Your task to perform on an android device: Go to display settings Image 0: 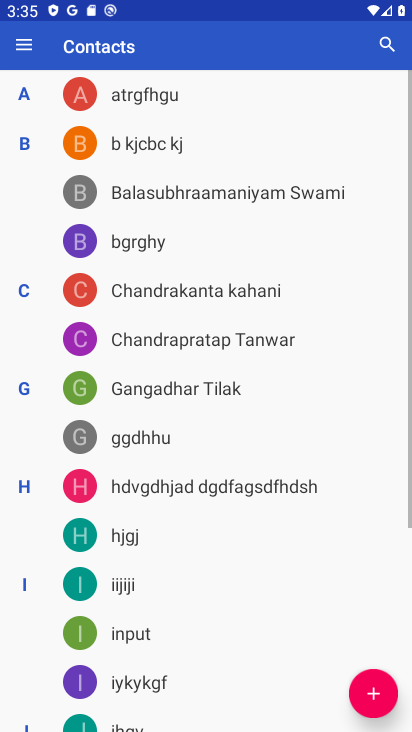
Step 0: drag from (272, 304) to (259, 108)
Your task to perform on an android device: Go to display settings Image 1: 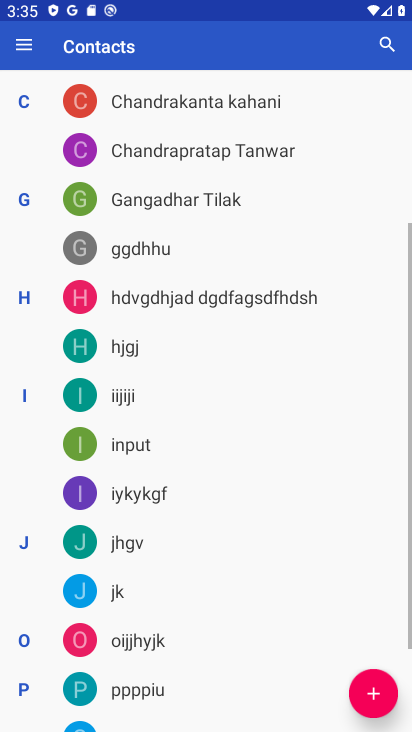
Step 1: press back button
Your task to perform on an android device: Go to display settings Image 2: 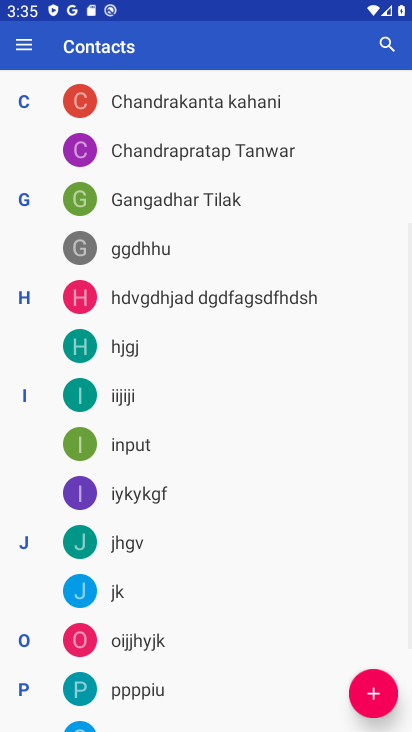
Step 2: press back button
Your task to perform on an android device: Go to display settings Image 3: 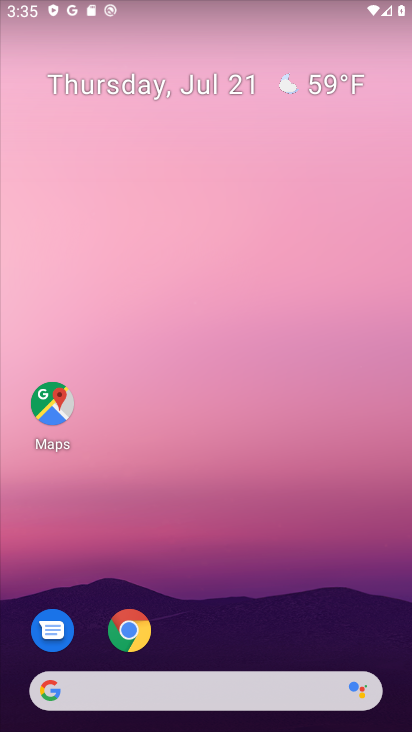
Step 3: drag from (232, 674) to (193, 24)
Your task to perform on an android device: Go to display settings Image 4: 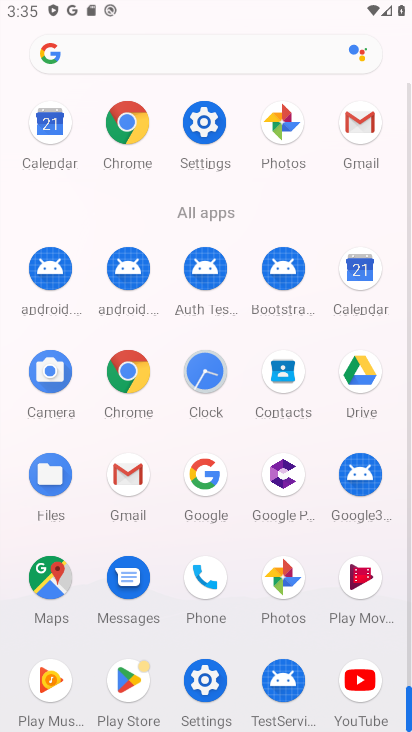
Step 4: click (201, 121)
Your task to perform on an android device: Go to display settings Image 5: 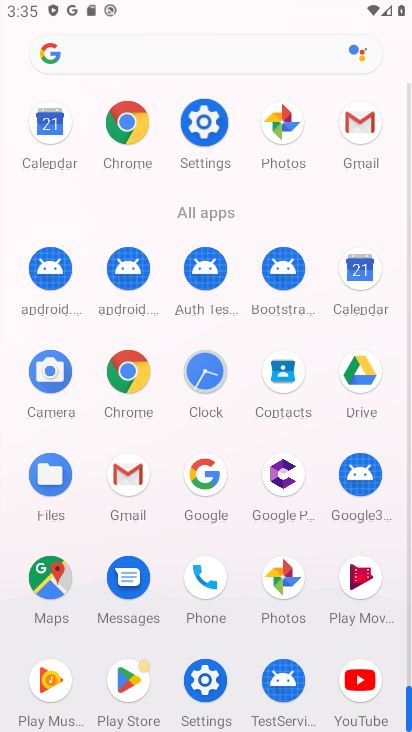
Step 5: click (212, 119)
Your task to perform on an android device: Go to display settings Image 6: 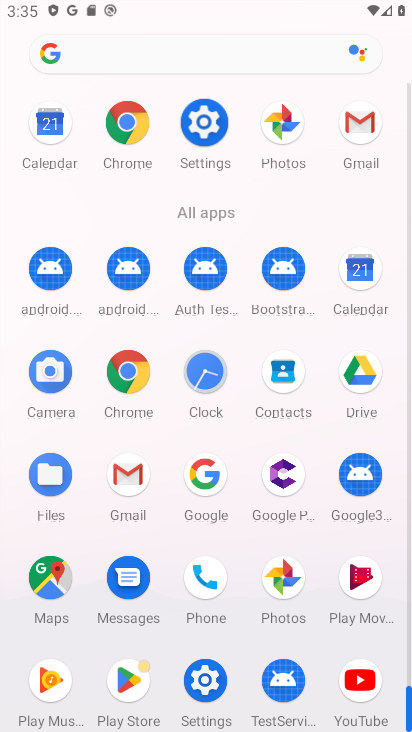
Step 6: click (218, 122)
Your task to perform on an android device: Go to display settings Image 7: 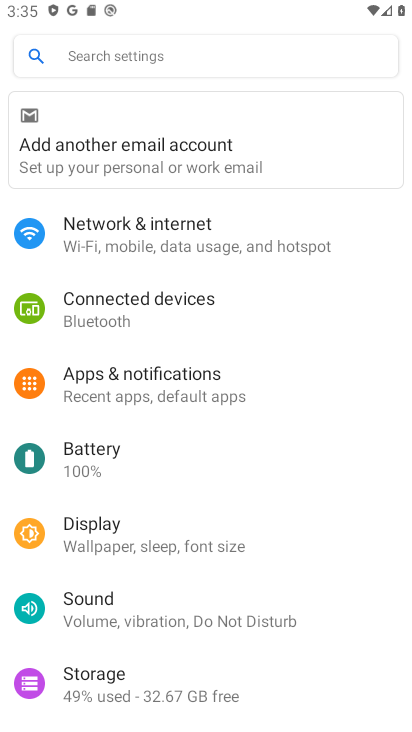
Step 7: click (98, 532)
Your task to perform on an android device: Go to display settings Image 8: 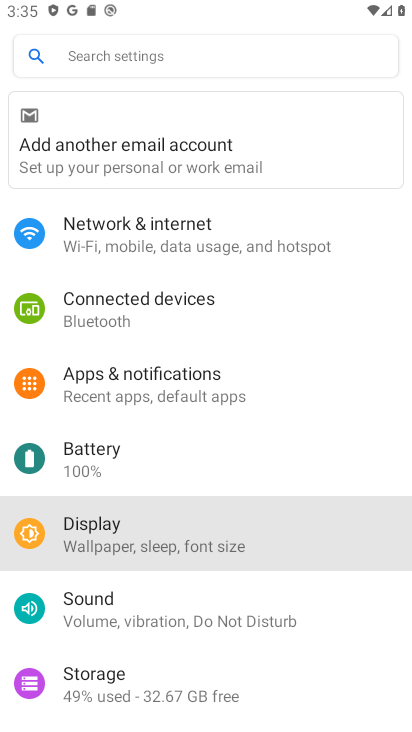
Step 8: click (98, 532)
Your task to perform on an android device: Go to display settings Image 9: 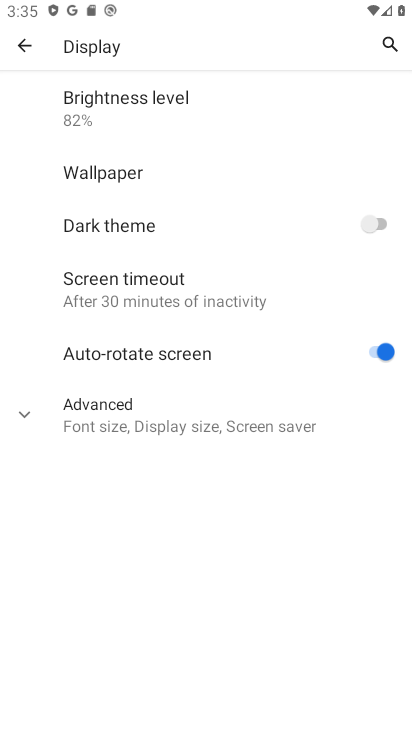
Step 9: task complete